Your task to perform on an android device: allow cookies in the chrome app Image 0: 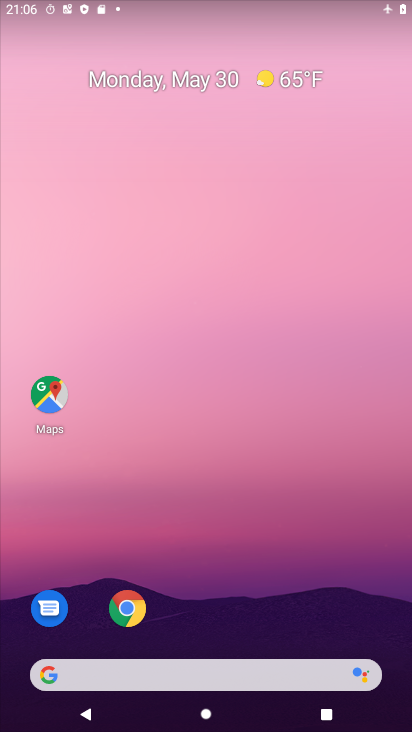
Step 0: click (139, 621)
Your task to perform on an android device: allow cookies in the chrome app Image 1: 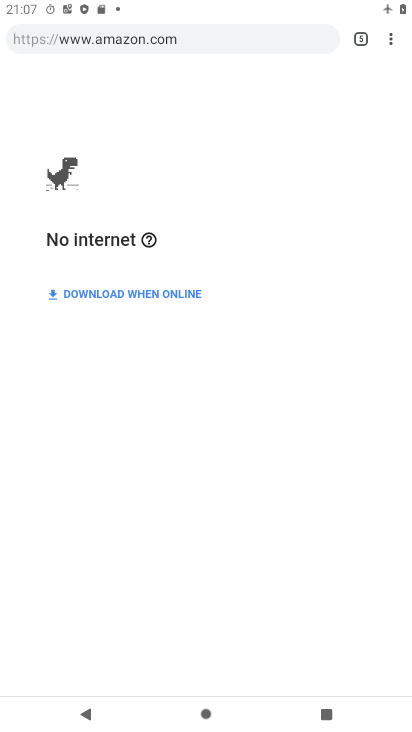
Step 1: click (395, 45)
Your task to perform on an android device: allow cookies in the chrome app Image 2: 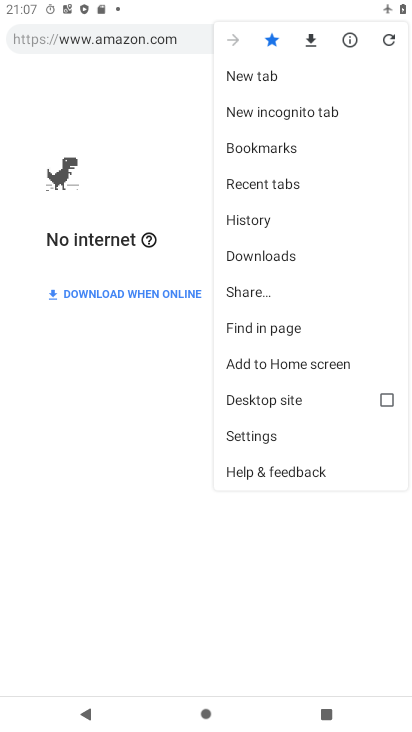
Step 2: click (273, 437)
Your task to perform on an android device: allow cookies in the chrome app Image 3: 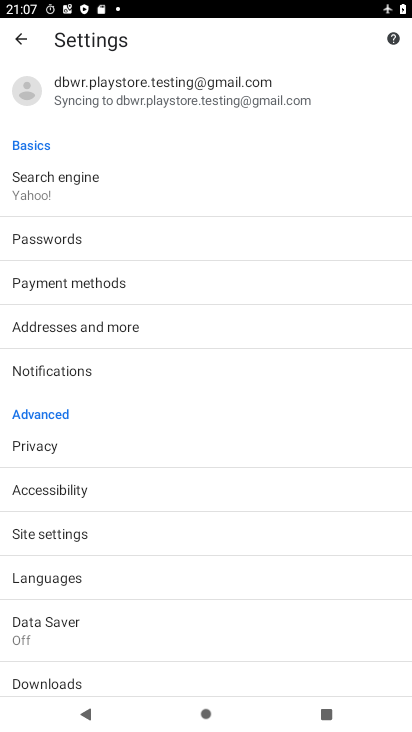
Step 3: drag from (174, 556) to (230, 336)
Your task to perform on an android device: allow cookies in the chrome app Image 4: 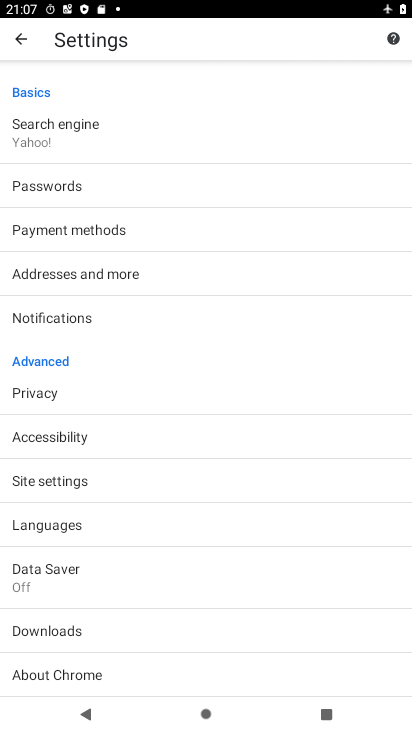
Step 4: click (114, 486)
Your task to perform on an android device: allow cookies in the chrome app Image 5: 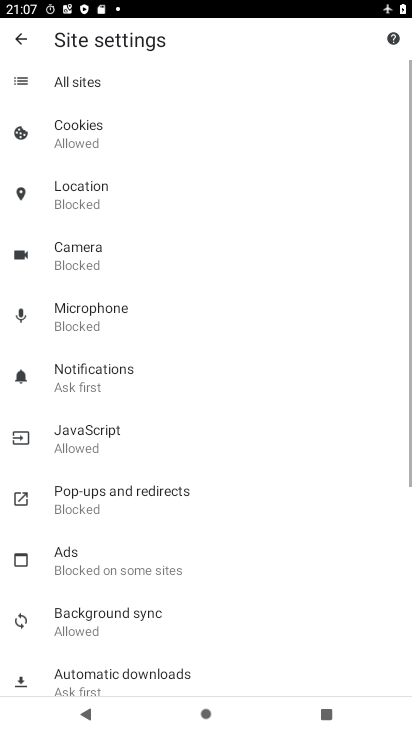
Step 5: click (153, 148)
Your task to perform on an android device: allow cookies in the chrome app Image 6: 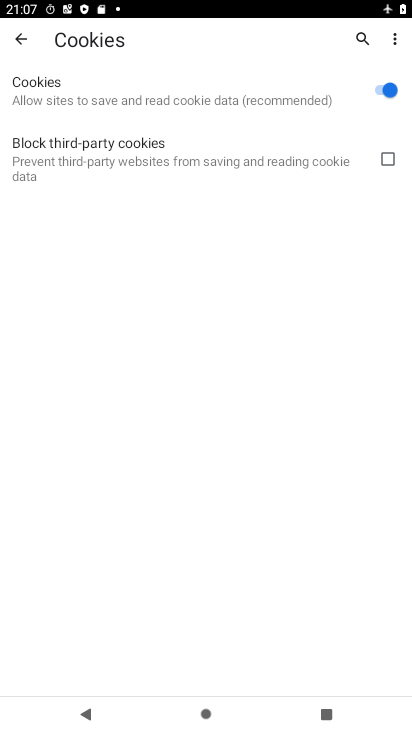
Step 6: task complete